Your task to perform on an android device: turn on airplane mode Image 0: 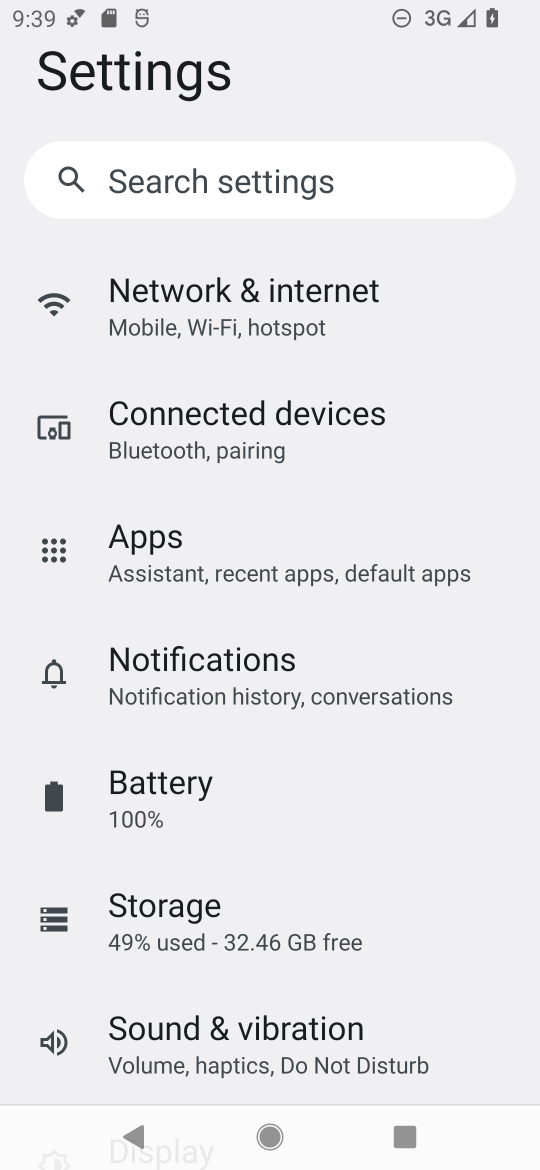
Step 0: press home button
Your task to perform on an android device: turn on airplane mode Image 1: 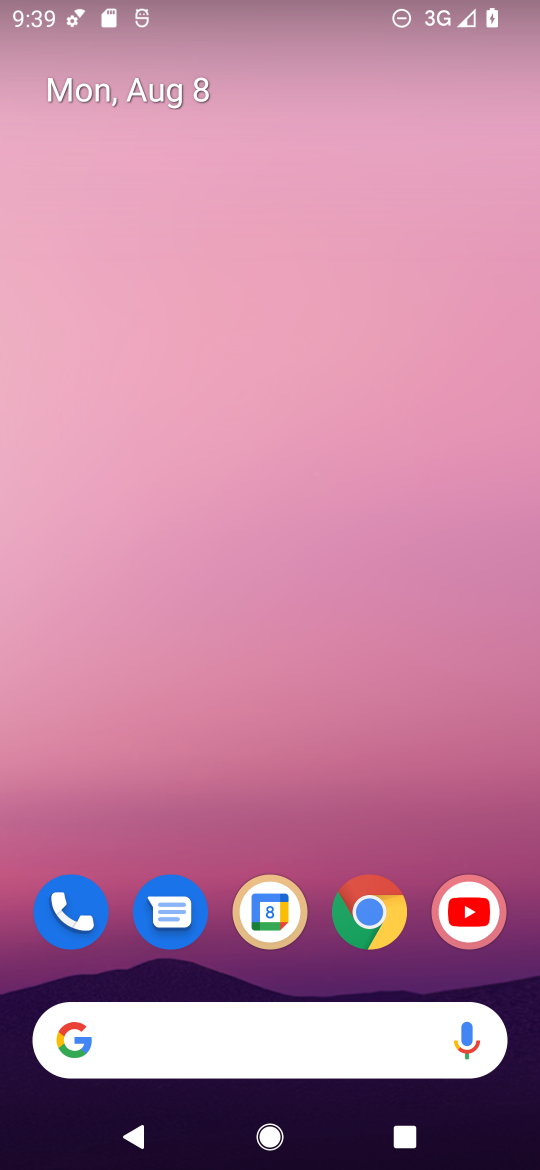
Step 1: drag from (234, 79) to (271, 740)
Your task to perform on an android device: turn on airplane mode Image 2: 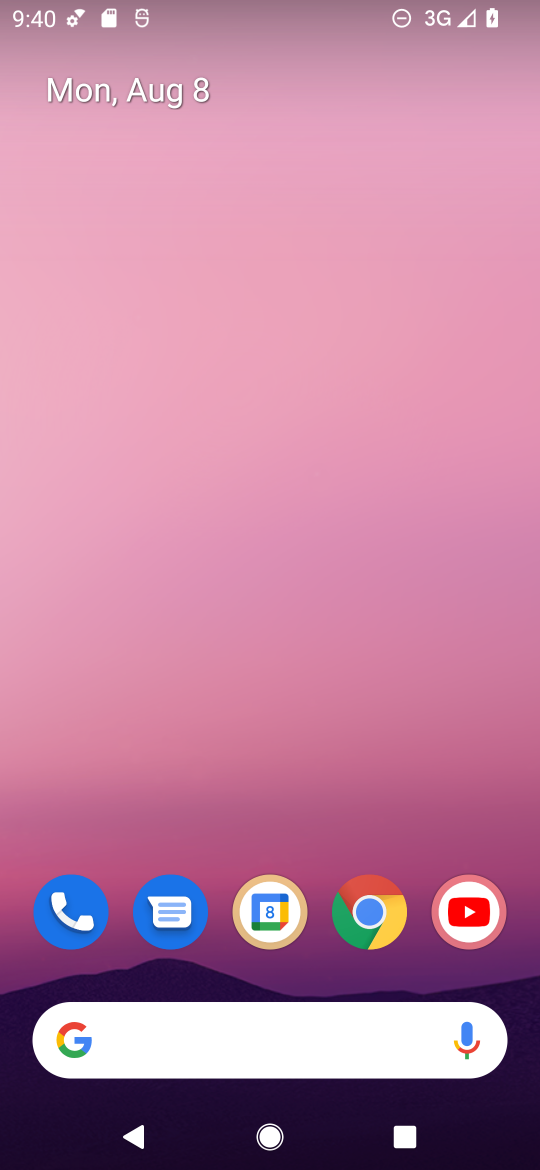
Step 2: drag from (194, 14) to (259, 1158)
Your task to perform on an android device: turn on airplane mode Image 3: 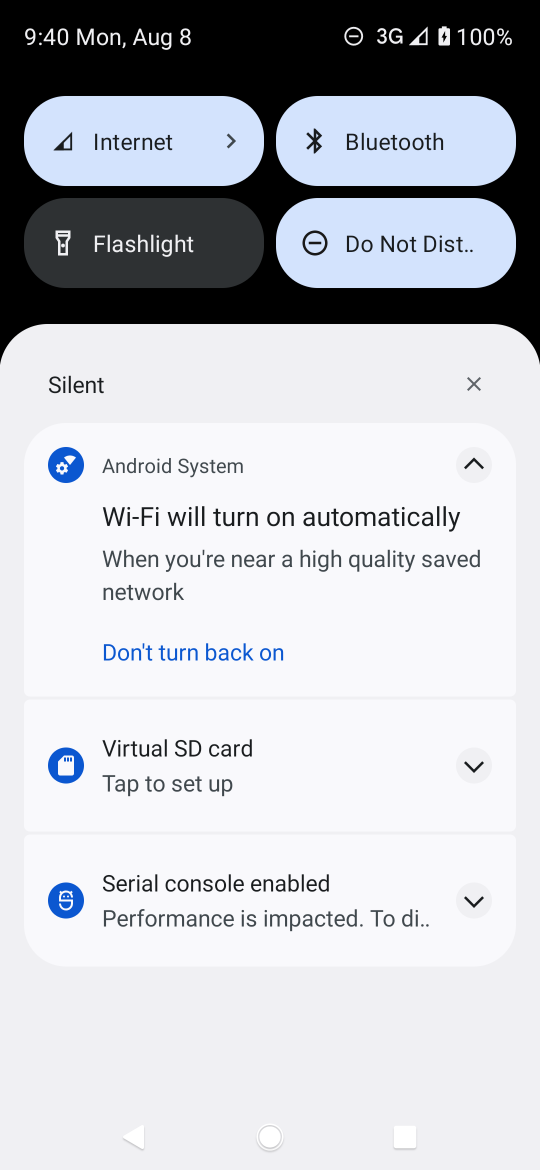
Step 3: drag from (255, 263) to (169, 1160)
Your task to perform on an android device: turn on airplane mode Image 4: 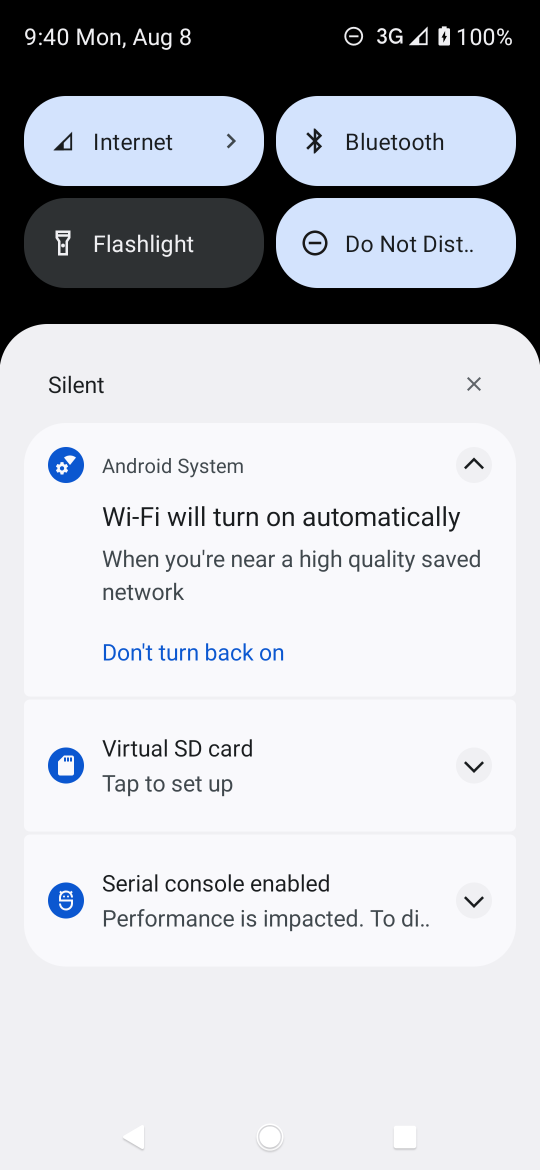
Step 4: drag from (311, 293) to (167, 1142)
Your task to perform on an android device: turn on airplane mode Image 5: 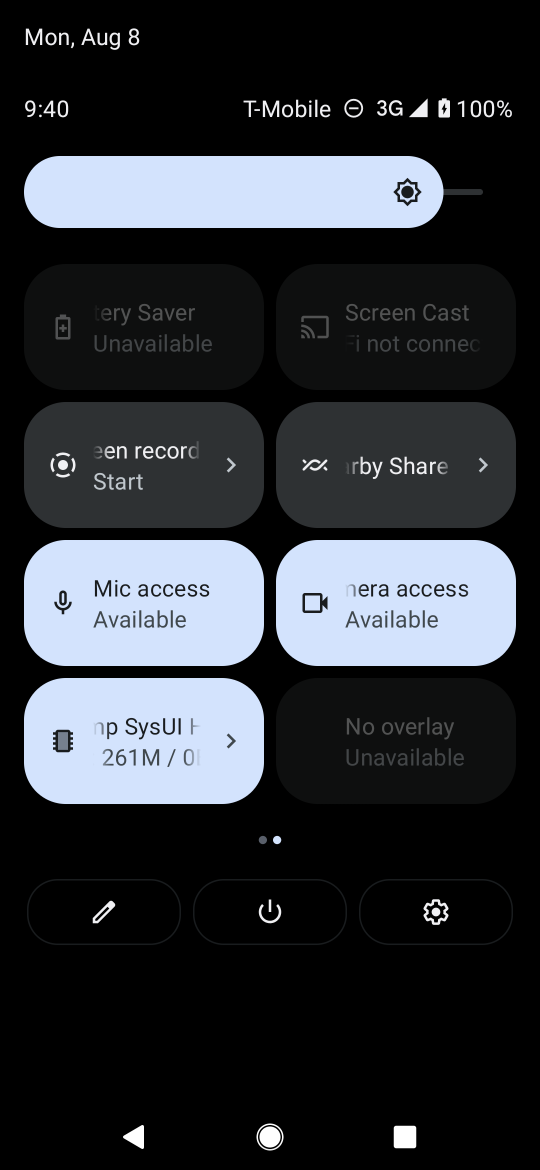
Step 5: drag from (12, 556) to (463, 731)
Your task to perform on an android device: turn on airplane mode Image 6: 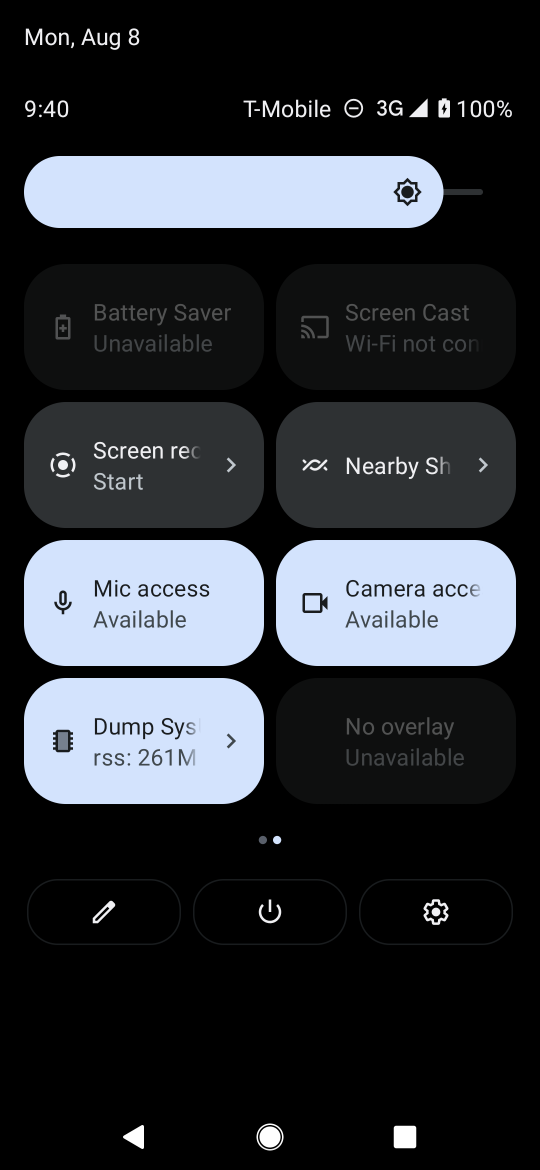
Step 6: drag from (89, 524) to (502, 636)
Your task to perform on an android device: turn on airplane mode Image 7: 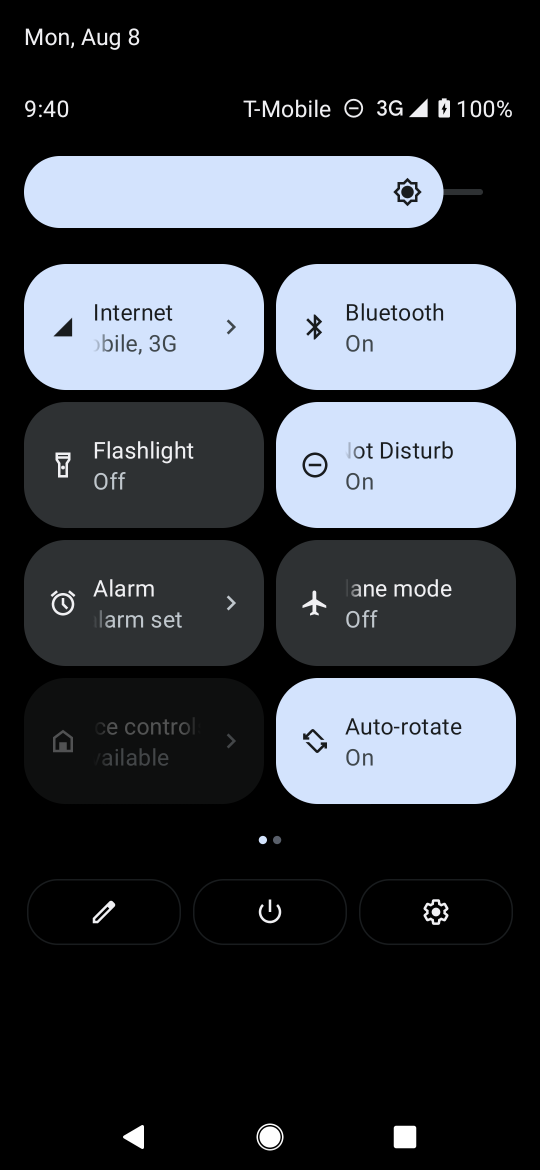
Step 7: click (338, 592)
Your task to perform on an android device: turn on airplane mode Image 8: 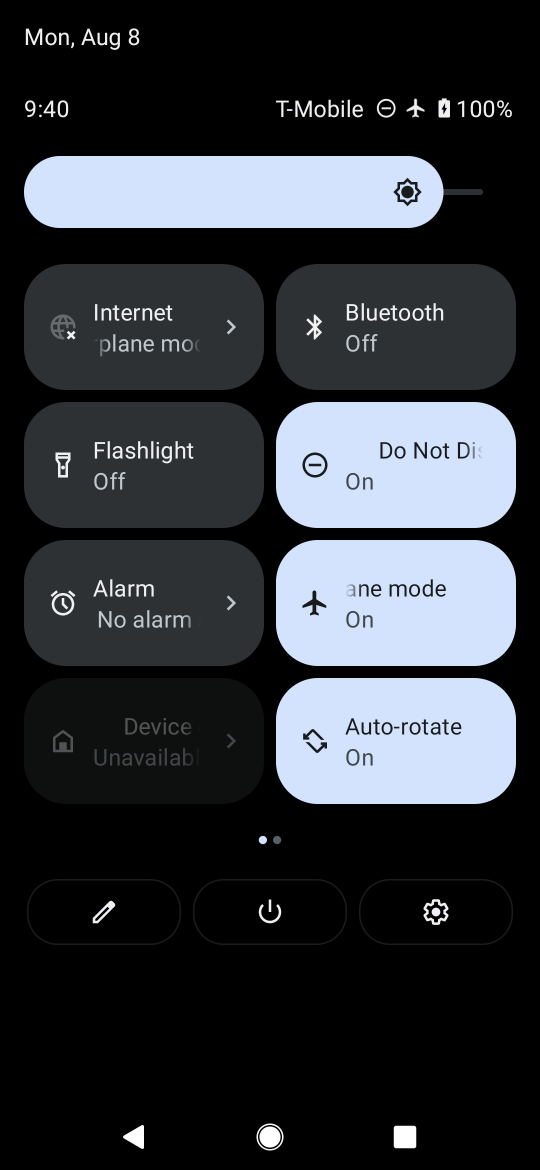
Step 8: task complete